Your task to perform on an android device: open a bookmark in the chrome app Image 0: 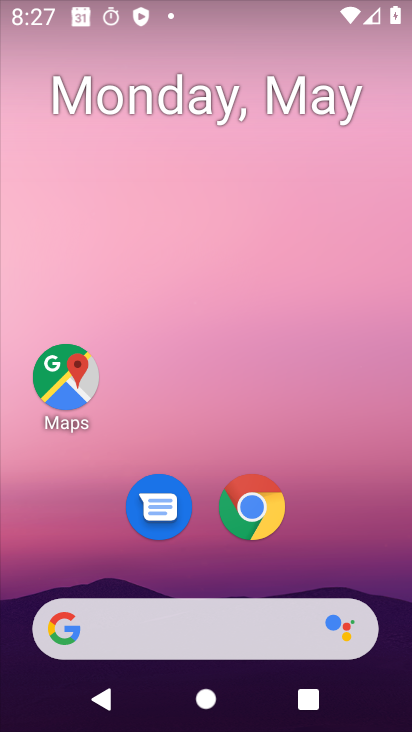
Step 0: drag from (198, 560) to (224, 11)
Your task to perform on an android device: open a bookmark in the chrome app Image 1: 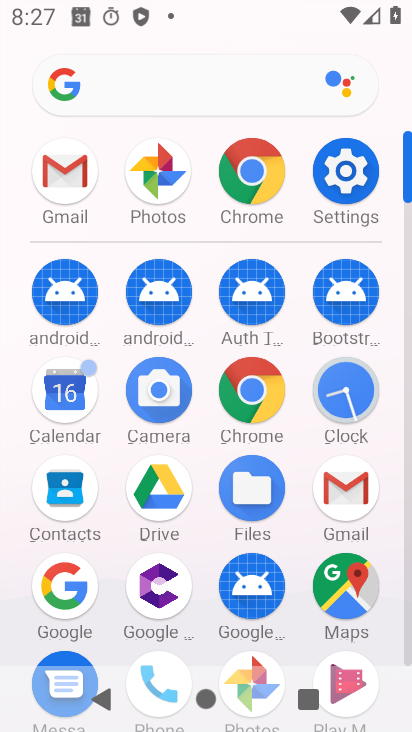
Step 1: click (258, 176)
Your task to perform on an android device: open a bookmark in the chrome app Image 2: 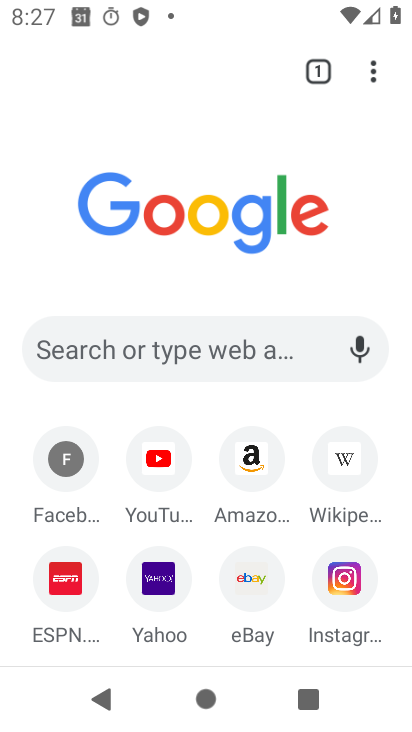
Step 2: click (376, 71)
Your task to perform on an android device: open a bookmark in the chrome app Image 3: 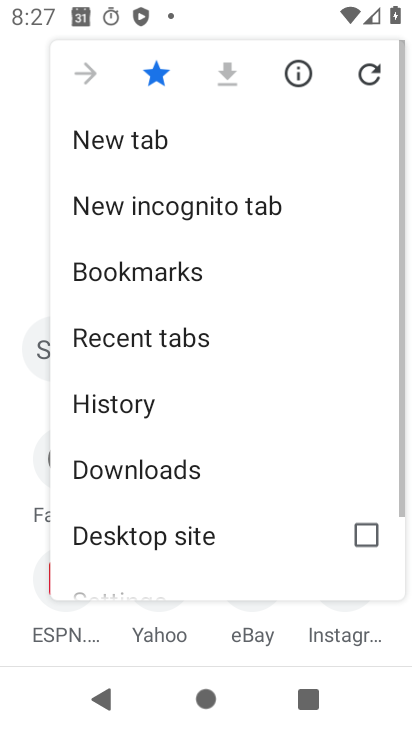
Step 3: drag from (181, 524) to (214, 261)
Your task to perform on an android device: open a bookmark in the chrome app Image 4: 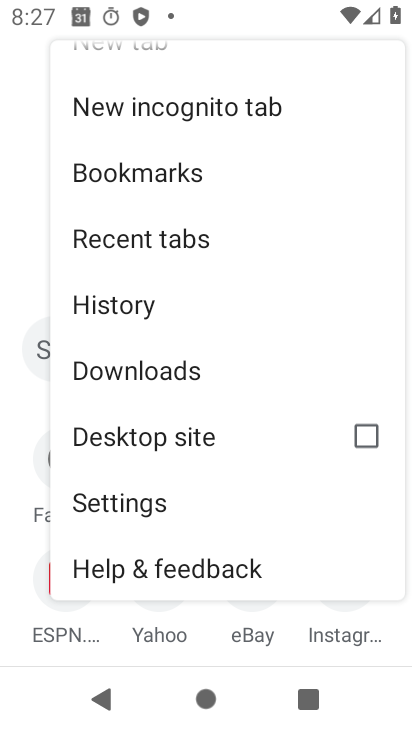
Step 4: click (177, 172)
Your task to perform on an android device: open a bookmark in the chrome app Image 5: 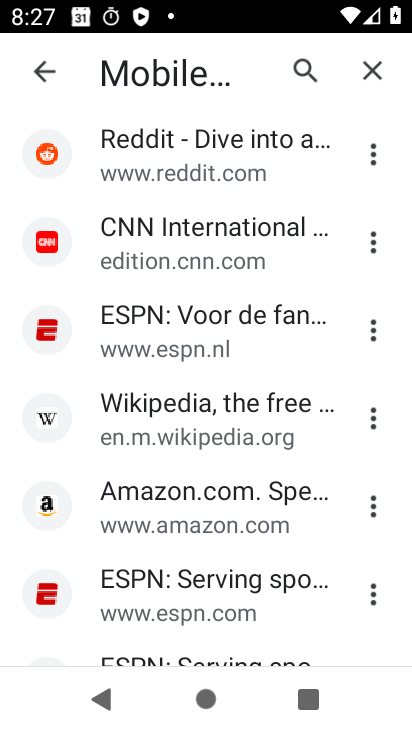
Step 5: click (225, 162)
Your task to perform on an android device: open a bookmark in the chrome app Image 6: 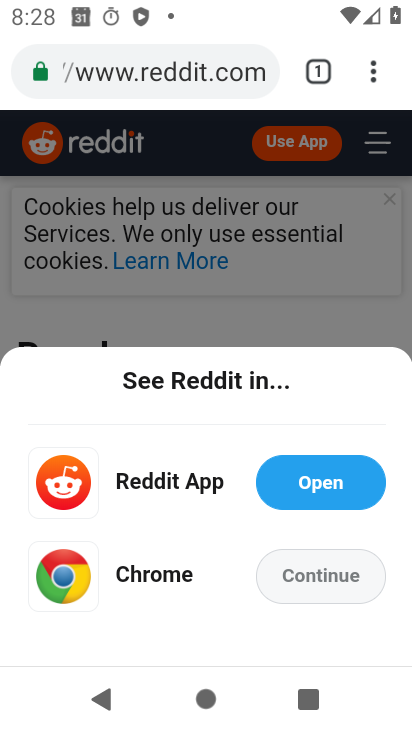
Step 6: task complete